Your task to perform on an android device: What's the weather going to be this weekend? Image 0: 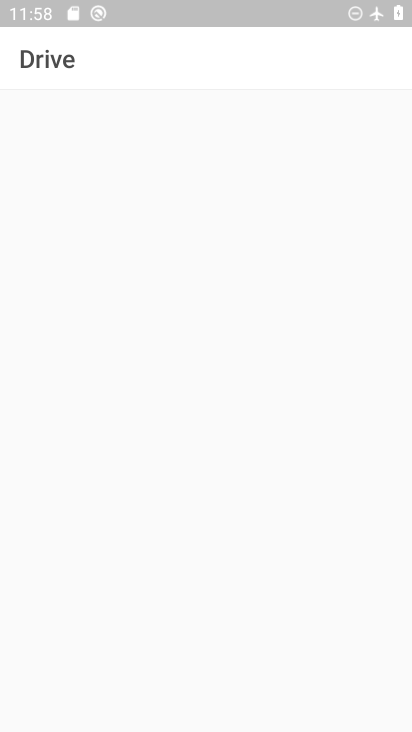
Step 0: press home button
Your task to perform on an android device: What's the weather going to be this weekend? Image 1: 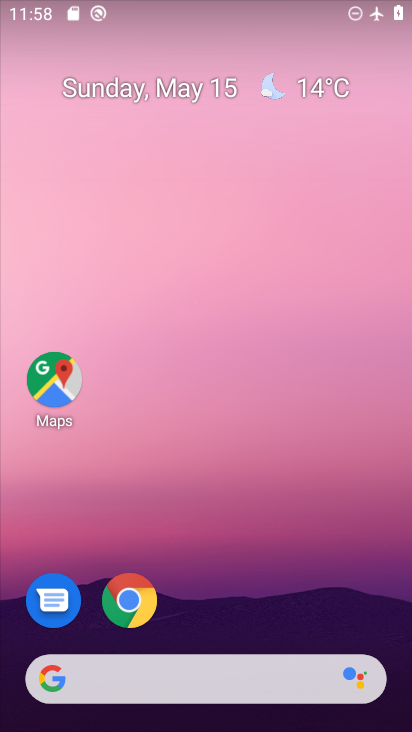
Step 1: click (314, 86)
Your task to perform on an android device: What's the weather going to be this weekend? Image 2: 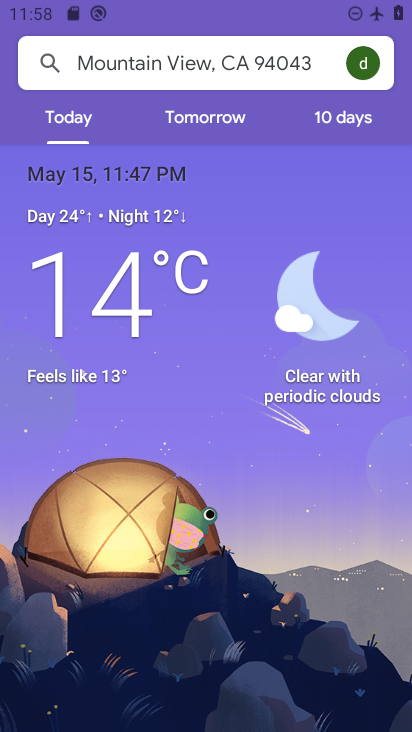
Step 2: click (335, 126)
Your task to perform on an android device: What's the weather going to be this weekend? Image 3: 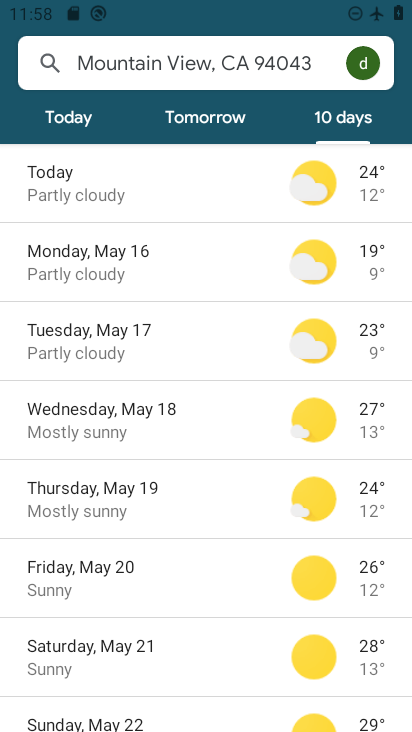
Step 3: task complete